Your task to perform on an android device: all mails in gmail Image 0: 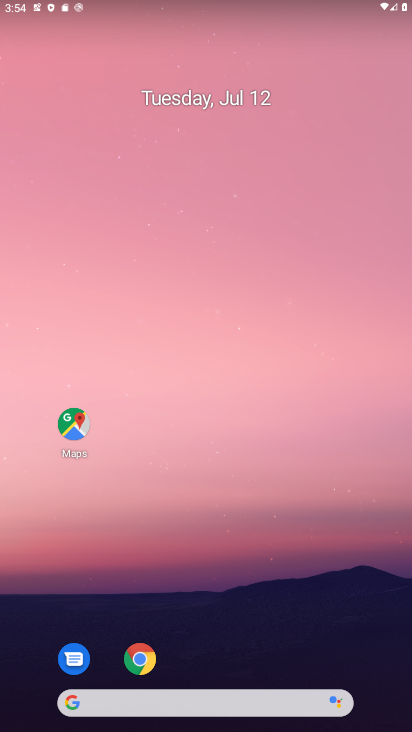
Step 0: drag from (223, 728) to (209, 294)
Your task to perform on an android device: all mails in gmail Image 1: 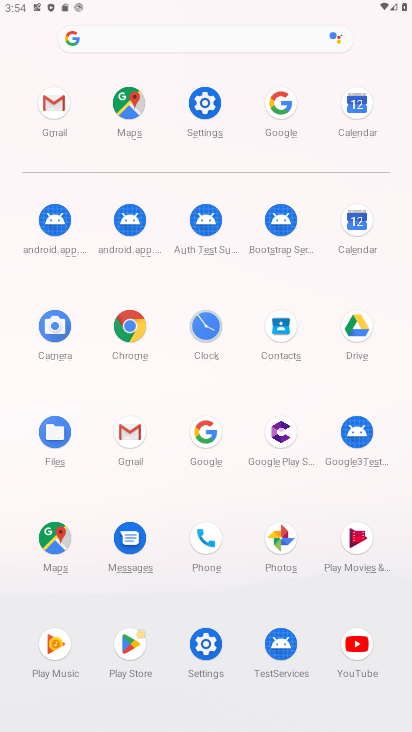
Step 1: click (130, 436)
Your task to perform on an android device: all mails in gmail Image 2: 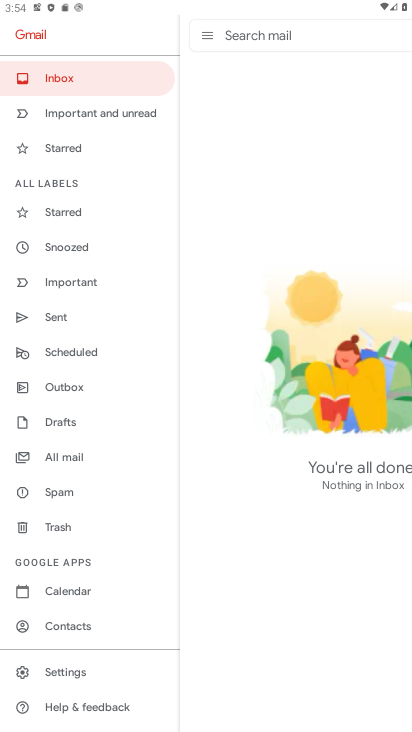
Step 2: click (62, 456)
Your task to perform on an android device: all mails in gmail Image 3: 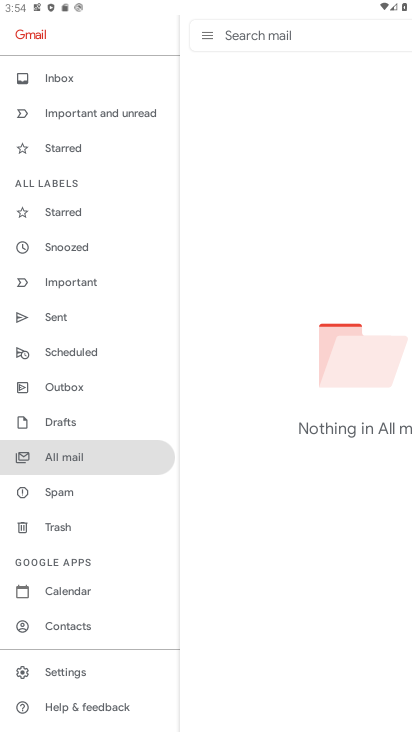
Step 3: task complete